Your task to perform on an android device: clear all cookies in the chrome app Image 0: 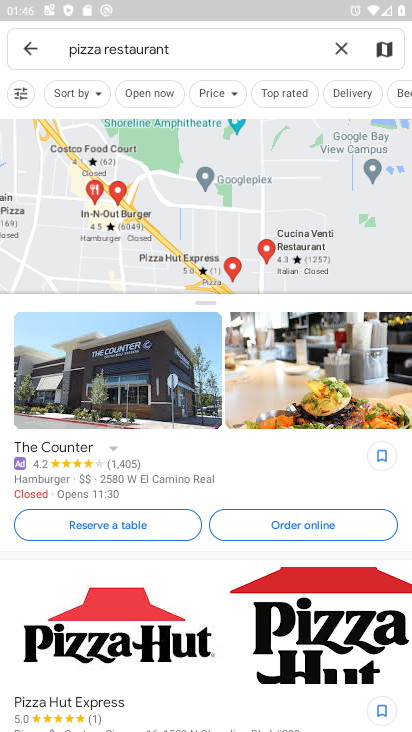
Step 0: press home button
Your task to perform on an android device: clear all cookies in the chrome app Image 1: 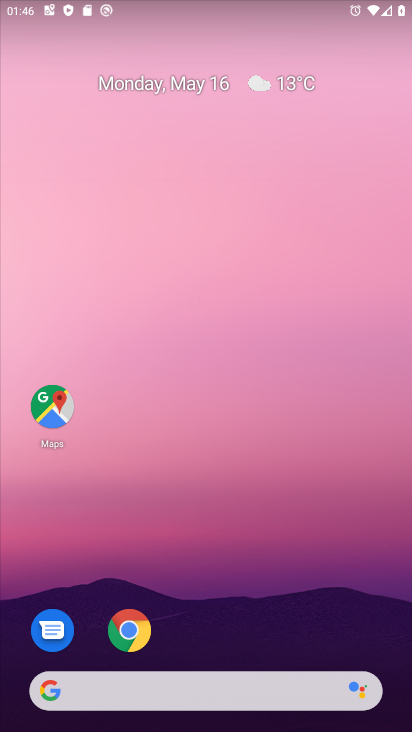
Step 1: click (130, 629)
Your task to perform on an android device: clear all cookies in the chrome app Image 2: 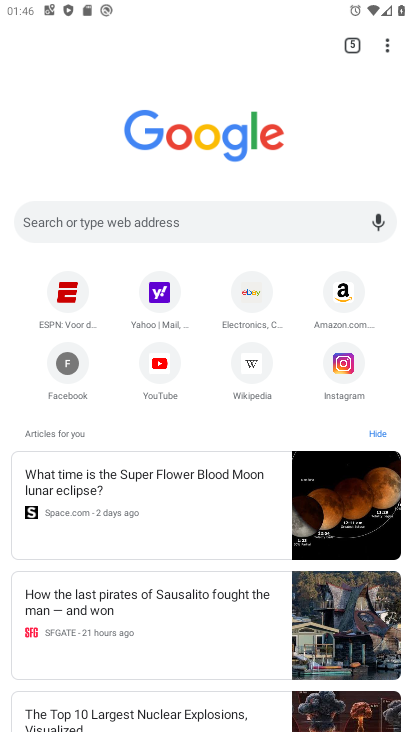
Step 2: click (393, 37)
Your task to perform on an android device: clear all cookies in the chrome app Image 3: 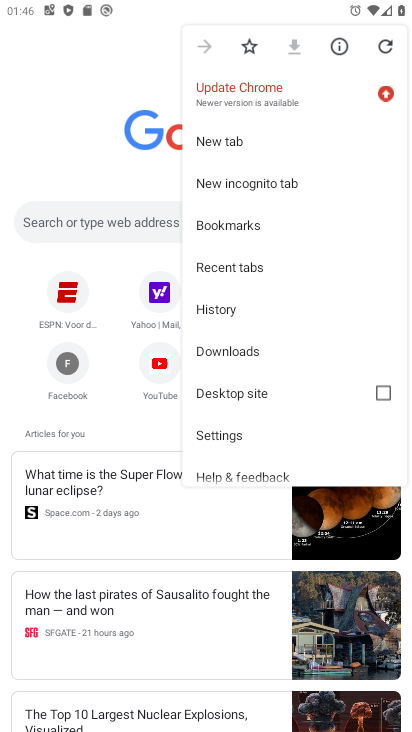
Step 3: click (207, 437)
Your task to perform on an android device: clear all cookies in the chrome app Image 4: 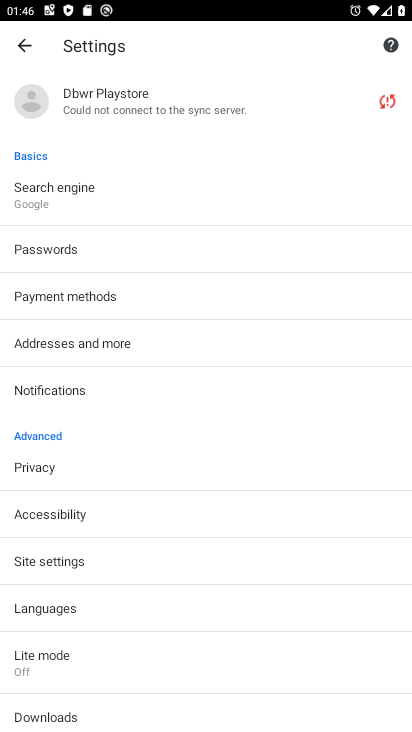
Step 4: click (112, 558)
Your task to perform on an android device: clear all cookies in the chrome app Image 5: 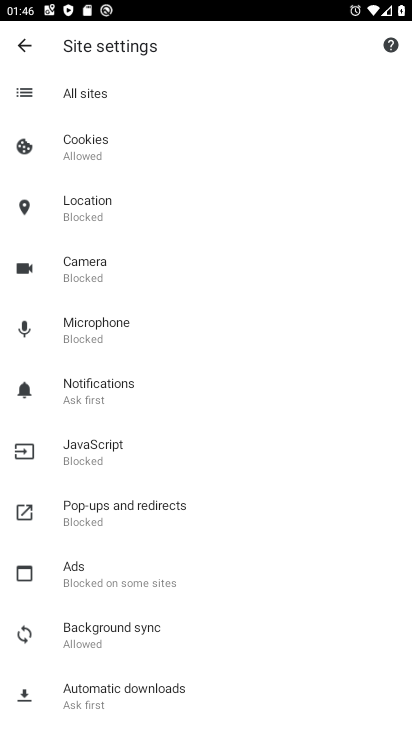
Step 5: click (131, 138)
Your task to perform on an android device: clear all cookies in the chrome app Image 6: 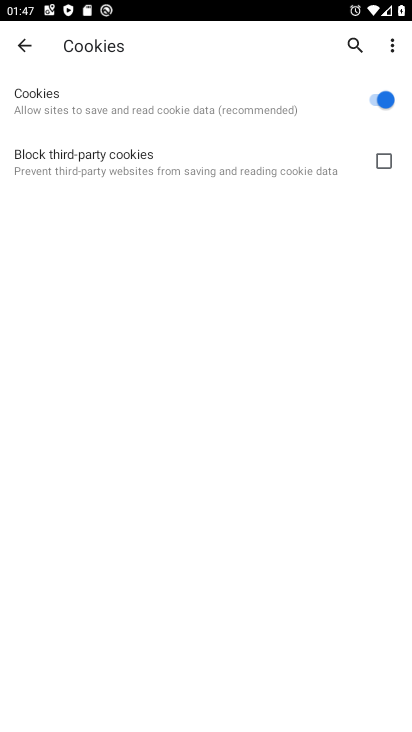
Step 6: click (388, 49)
Your task to perform on an android device: clear all cookies in the chrome app Image 7: 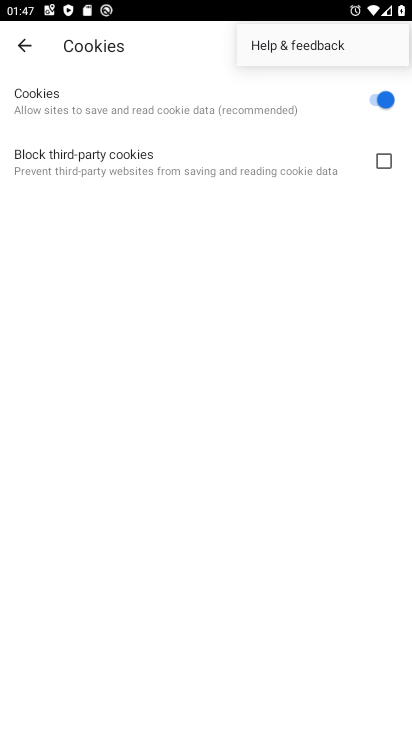
Step 7: press back button
Your task to perform on an android device: clear all cookies in the chrome app Image 8: 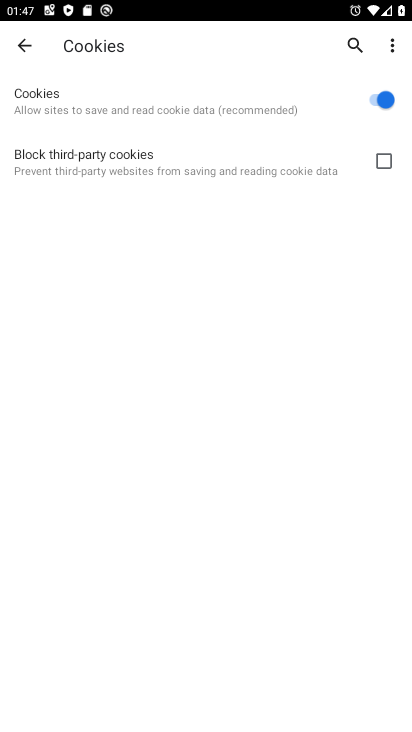
Step 8: press back button
Your task to perform on an android device: clear all cookies in the chrome app Image 9: 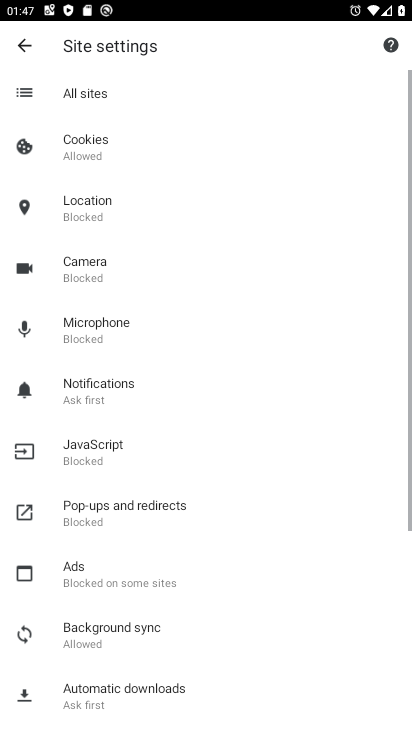
Step 9: press back button
Your task to perform on an android device: clear all cookies in the chrome app Image 10: 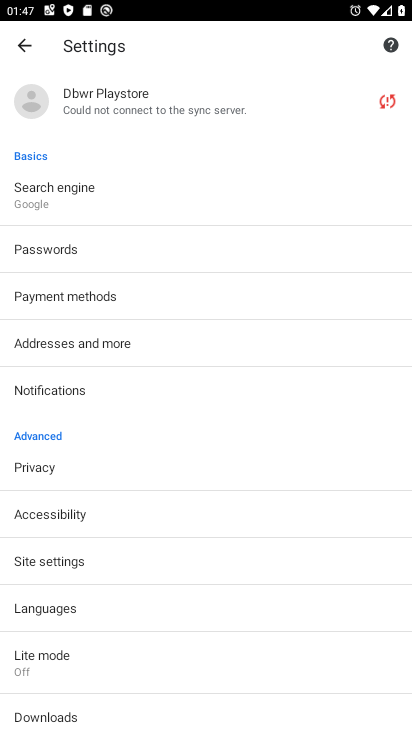
Step 10: drag from (165, 243) to (169, 164)
Your task to perform on an android device: clear all cookies in the chrome app Image 11: 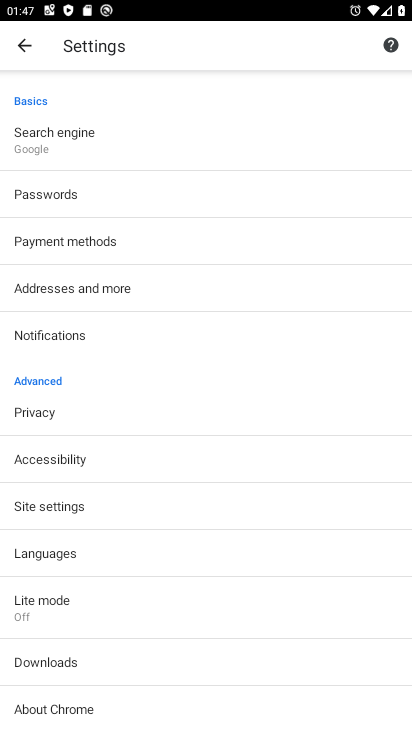
Step 11: click (136, 501)
Your task to perform on an android device: clear all cookies in the chrome app Image 12: 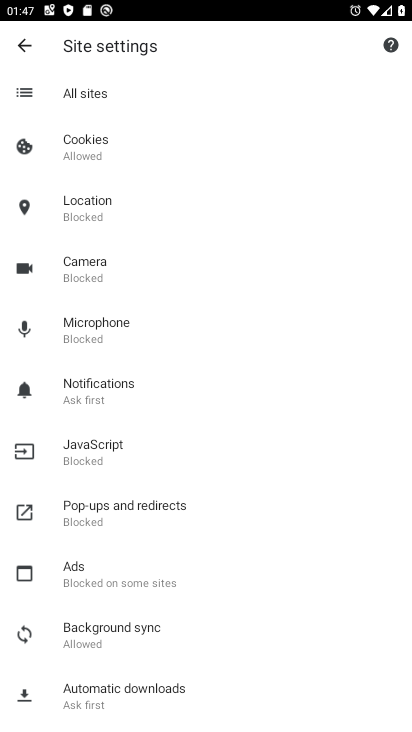
Step 12: drag from (249, 631) to (256, 140)
Your task to perform on an android device: clear all cookies in the chrome app Image 13: 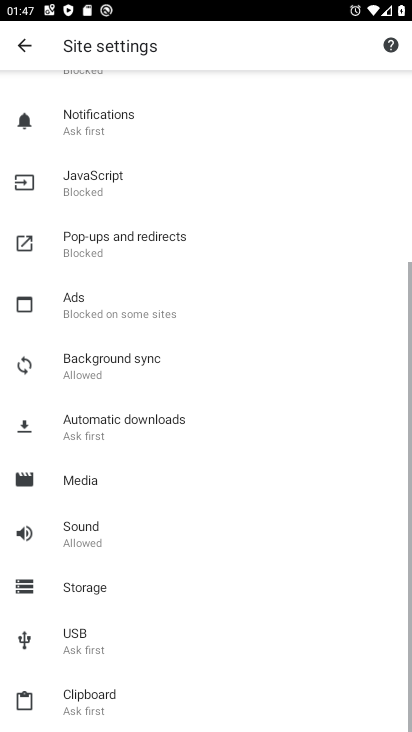
Step 13: drag from (263, 615) to (265, 165)
Your task to perform on an android device: clear all cookies in the chrome app Image 14: 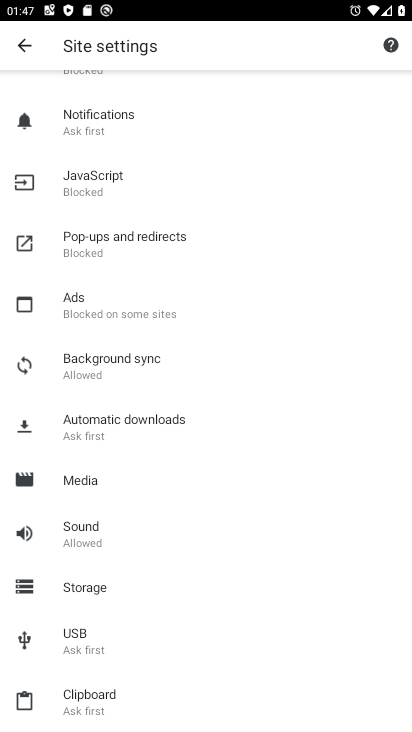
Step 14: drag from (265, 161) to (255, 723)
Your task to perform on an android device: clear all cookies in the chrome app Image 15: 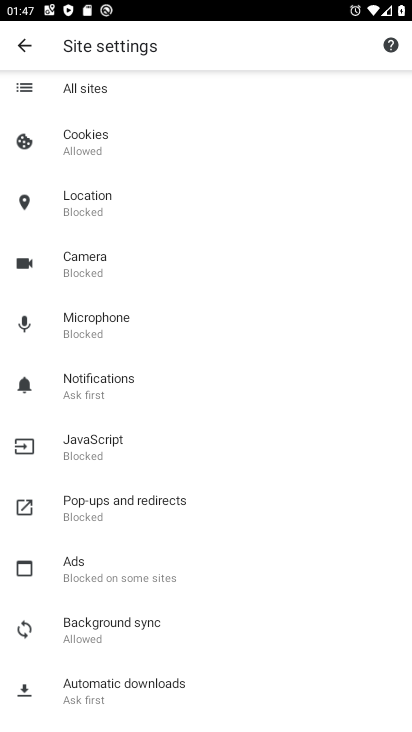
Step 15: click (214, 141)
Your task to perform on an android device: clear all cookies in the chrome app Image 16: 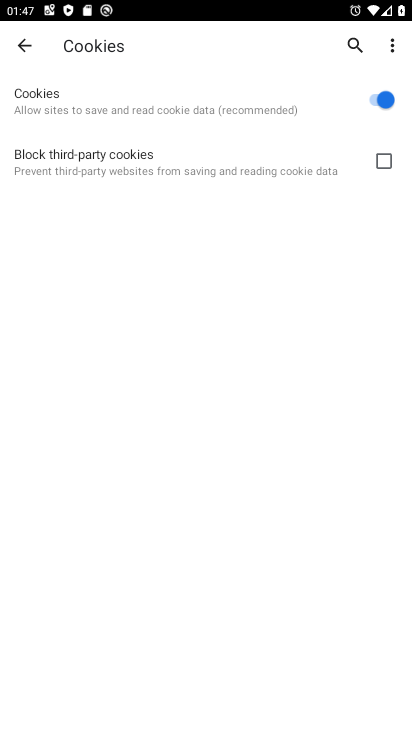
Step 16: click (401, 32)
Your task to perform on an android device: clear all cookies in the chrome app Image 17: 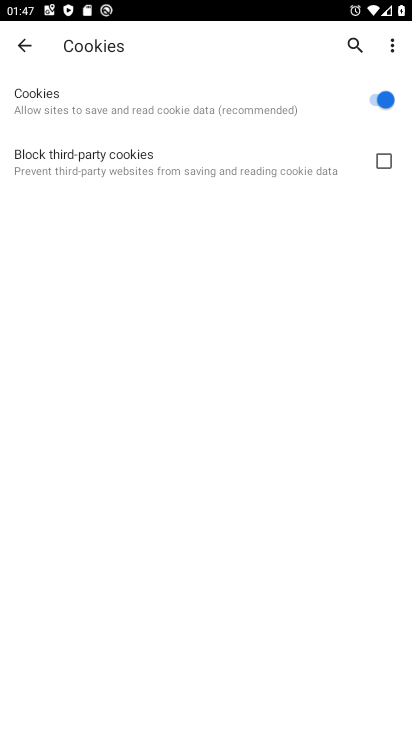
Step 17: click (349, 86)
Your task to perform on an android device: clear all cookies in the chrome app Image 18: 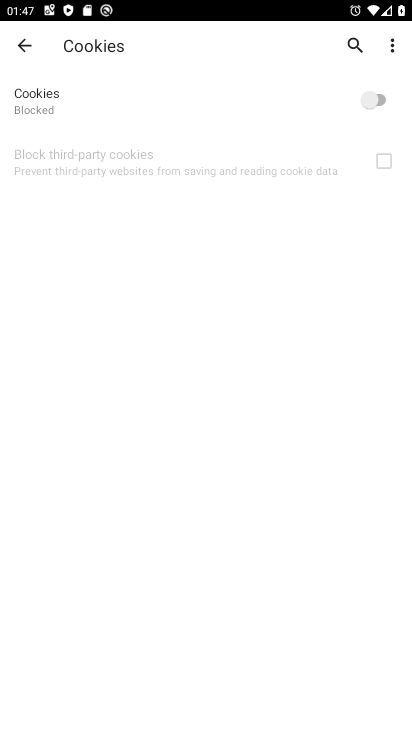
Step 18: click (376, 102)
Your task to perform on an android device: clear all cookies in the chrome app Image 19: 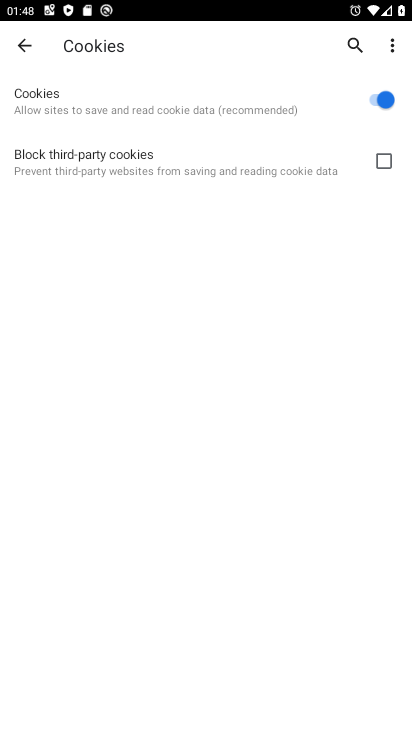
Step 19: task complete